Your task to perform on an android device: Open Google Maps and go to "Timeline" Image 0: 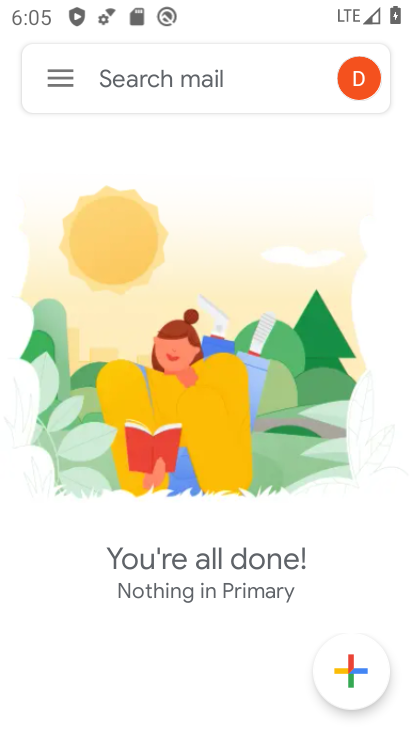
Step 0: press home button
Your task to perform on an android device: Open Google Maps and go to "Timeline" Image 1: 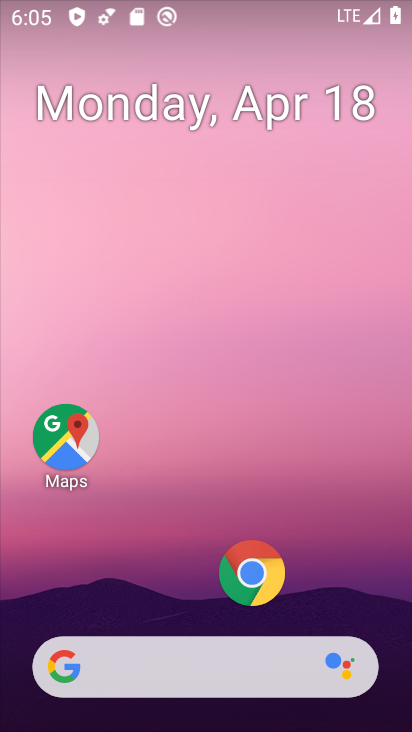
Step 1: click (55, 408)
Your task to perform on an android device: Open Google Maps and go to "Timeline" Image 2: 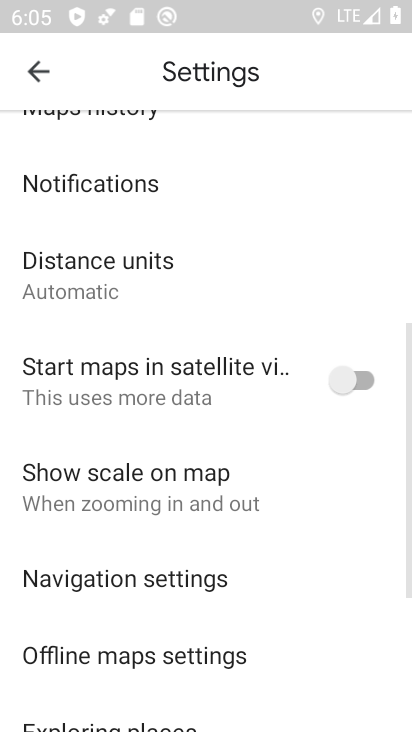
Step 2: click (37, 72)
Your task to perform on an android device: Open Google Maps and go to "Timeline" Image 3: 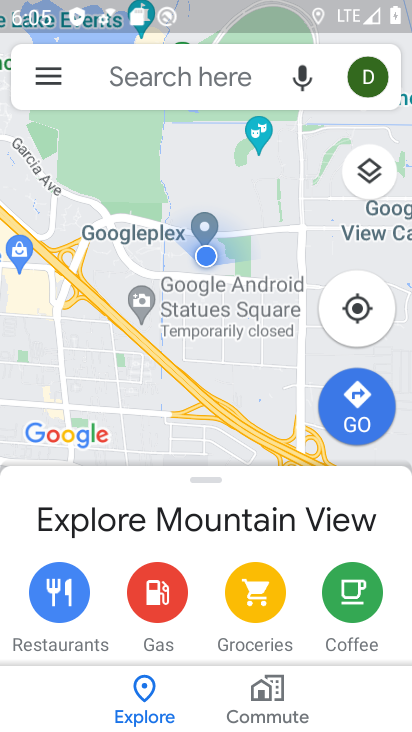
Step 3: click (35, 73)
Your task to perform on an android device: Open Google Maps and go to "Timeline" Image 4: 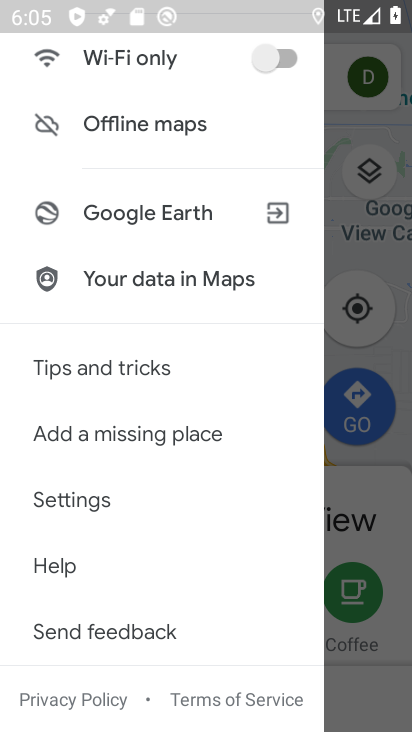
Step 4: drag from (170, 198) to (123, 613)
Your task to perform on an android device: Open Google Maps and go to "Timeline" Image 5: 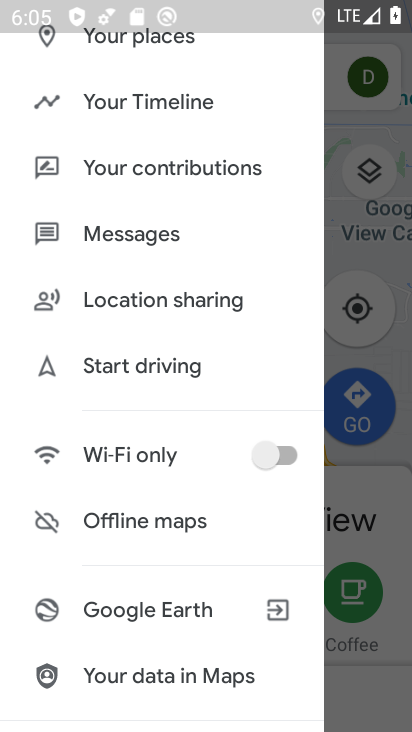
Step 5: click (172, 112)
Your task to perform on an android device: Open Google Maps and go to "Timeline" Image 6: 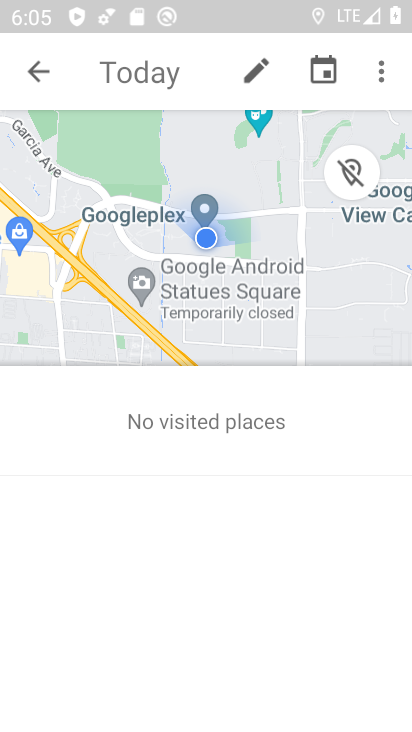
Step 6: task complete